Your task to perform on an android device: Show the shopping cart on costco. Search for rayovac triple a on costco, select the first entry, and add it to the cart. Image 0: 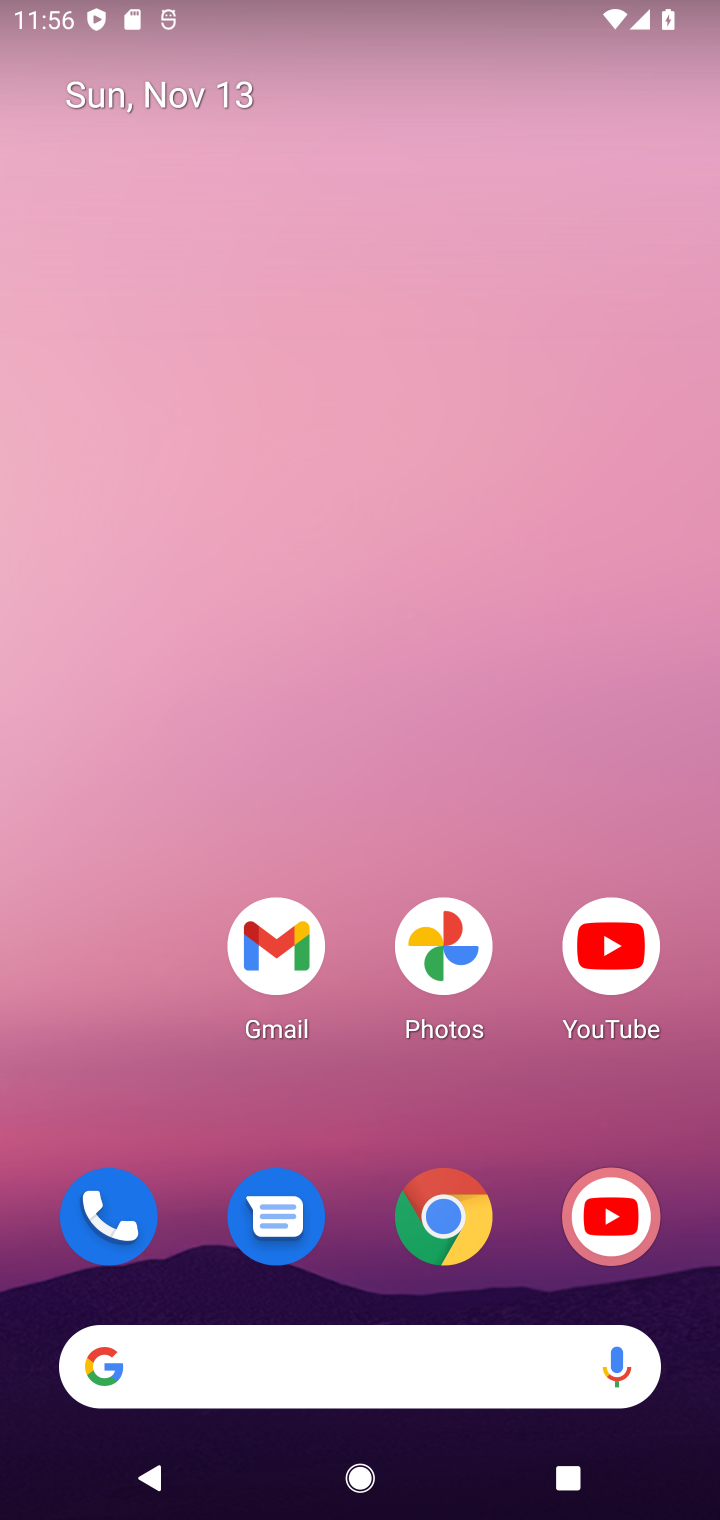
Step 0: click (449, 1235)
Your task to perform on an android device: Show the shopping cart on costco. Search for rayovac triple a on costco, select the first entry, and add it to the cart. Image 1: 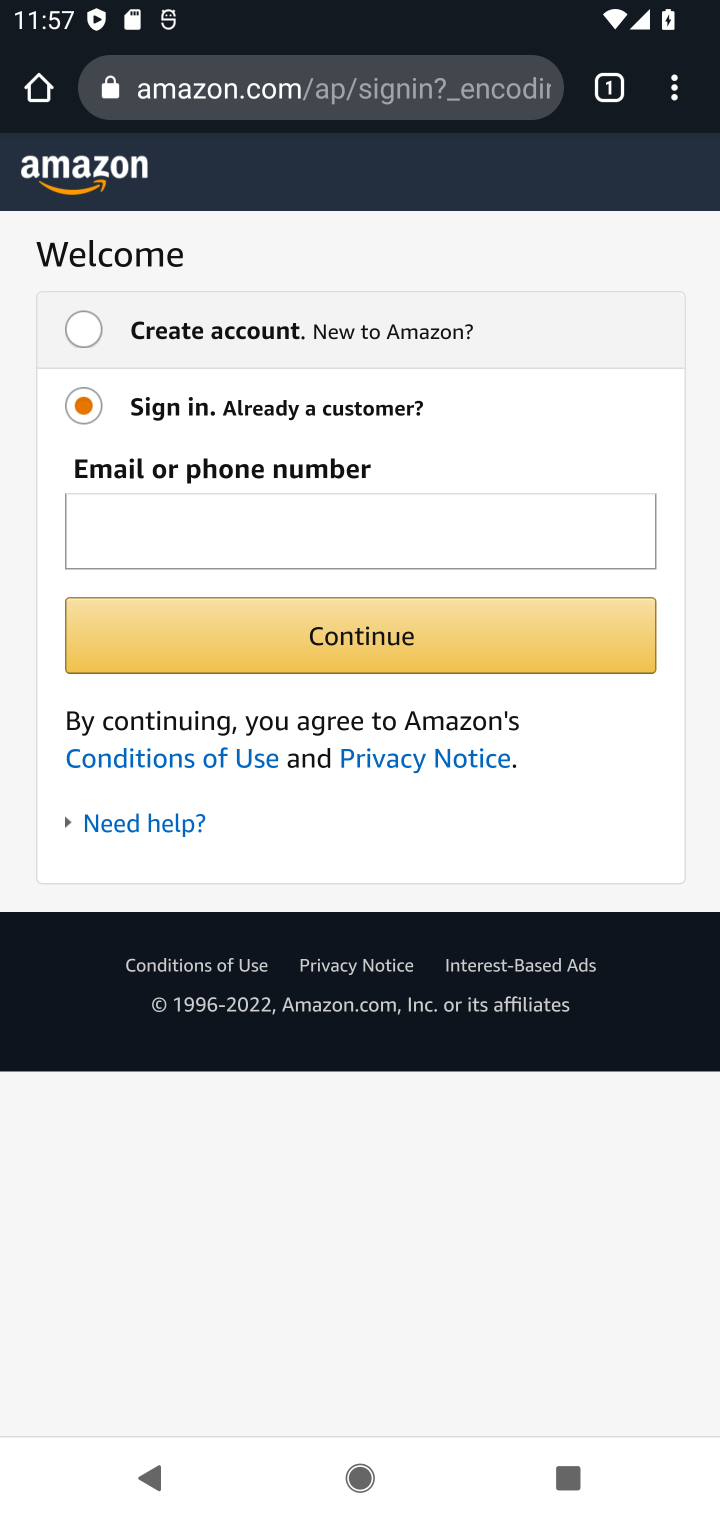
Step 1: click (621, 99)
Your task to perform on an android device: Show the shopping cart on costco. Search for rayovac triple a on costco, select the first entry, and add it to the cart. Image 2: 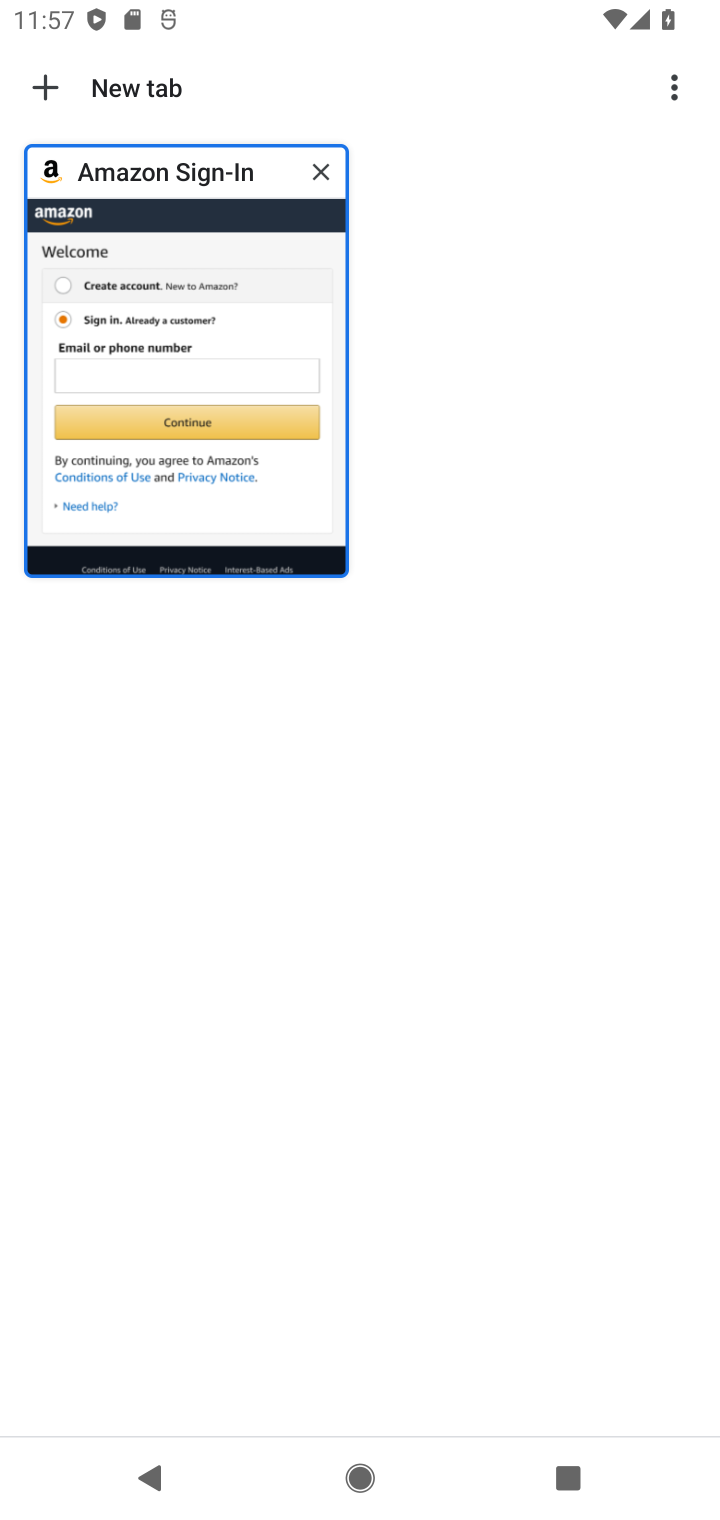
Step 2: click (37, 84)
Your task to perform on an android device: Show the shopping cart on costco. Search for rayovac triple a on costco, select the first entry, and add it to the cart. Image 3: 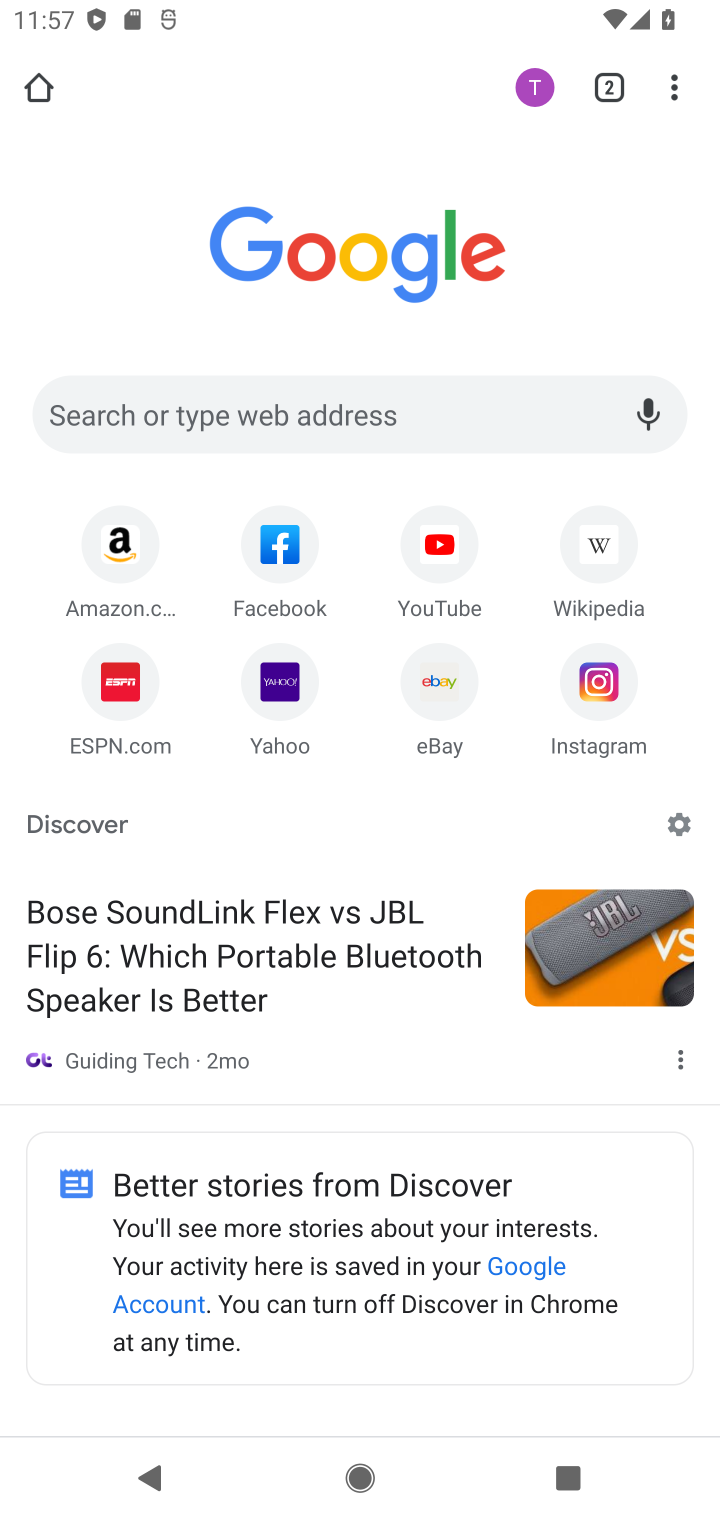
Step 3: click (167, 404)
Your task to perform on an android device: Show the shopping cart on costco. Search for rayovac triple a on costco, select the first entry, and add it to the cart. Image 4: 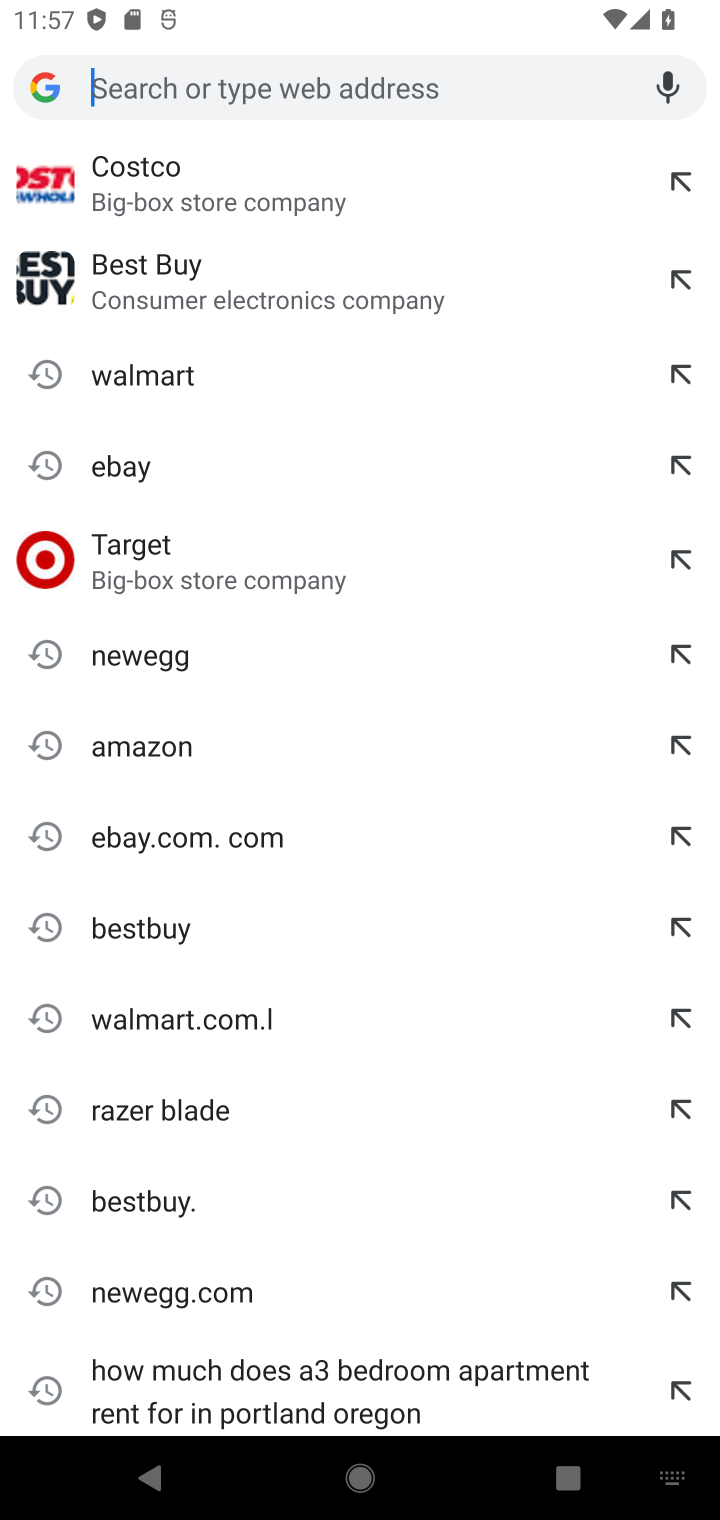
Step 4: click (155, 193)
Your task to perform on an android device: Show the shopping cart on costco. Search for rayovac triple a on costco, select the first entry, and add it to the cart. Image 5: 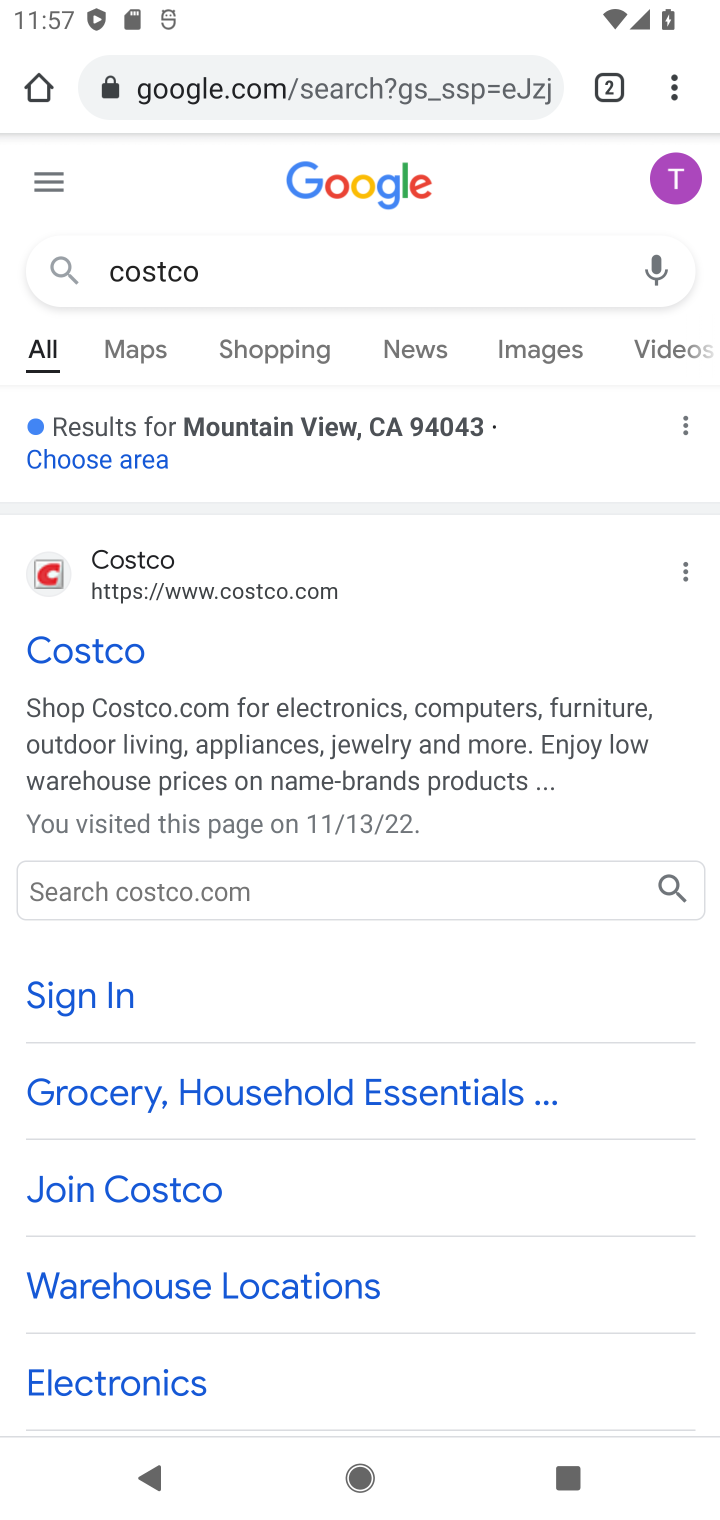
Step 5: click (195, 899)
Your task to perform on an android device: Show the shopping cart on costco. Search for rayovac triple a on costco, select the first entry, and add it to the cart. Image 6: 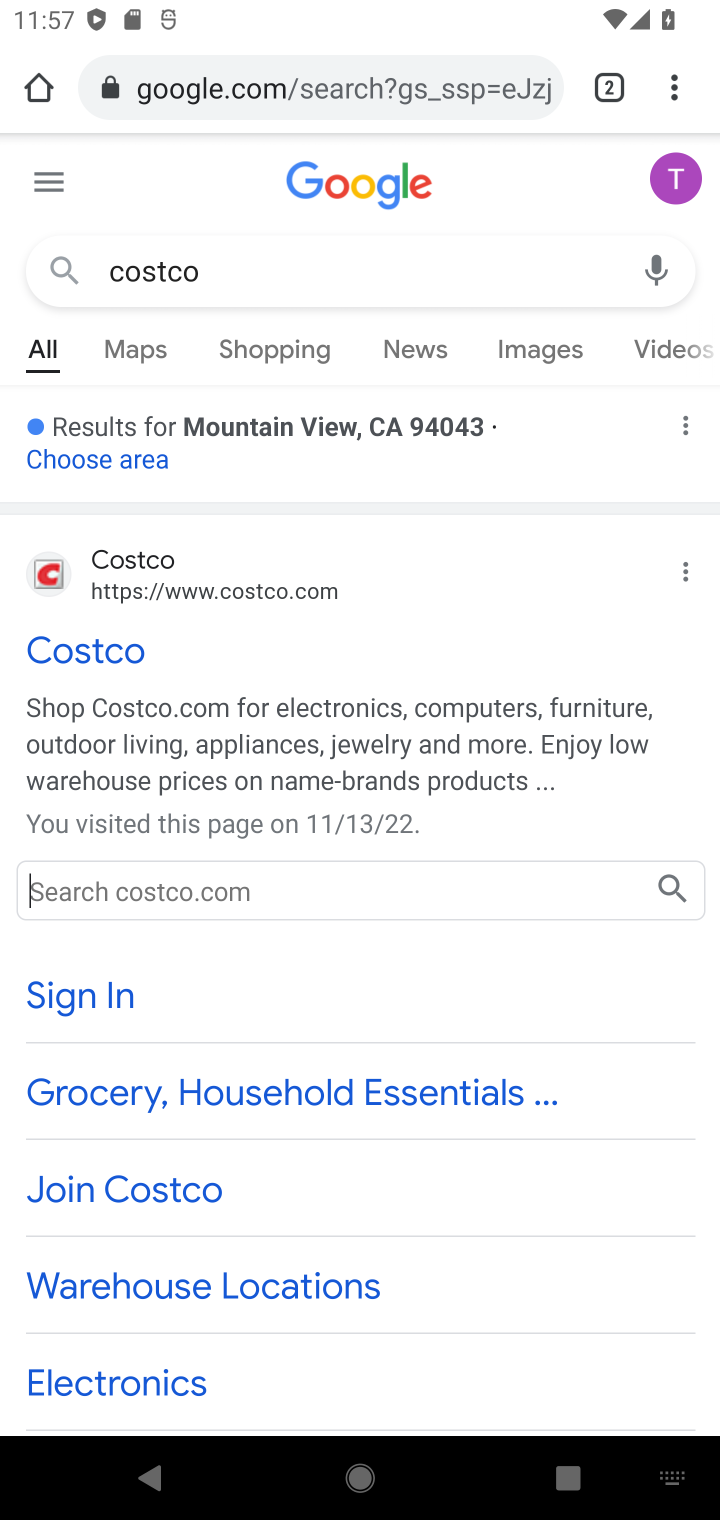
Step 6: type "rayovac triple a battery"
Your task to perform on an android device: Show the shopping cart on costco. Search for rayovac triple a on costco, select the first entry, and add it to the cart. Image 7: 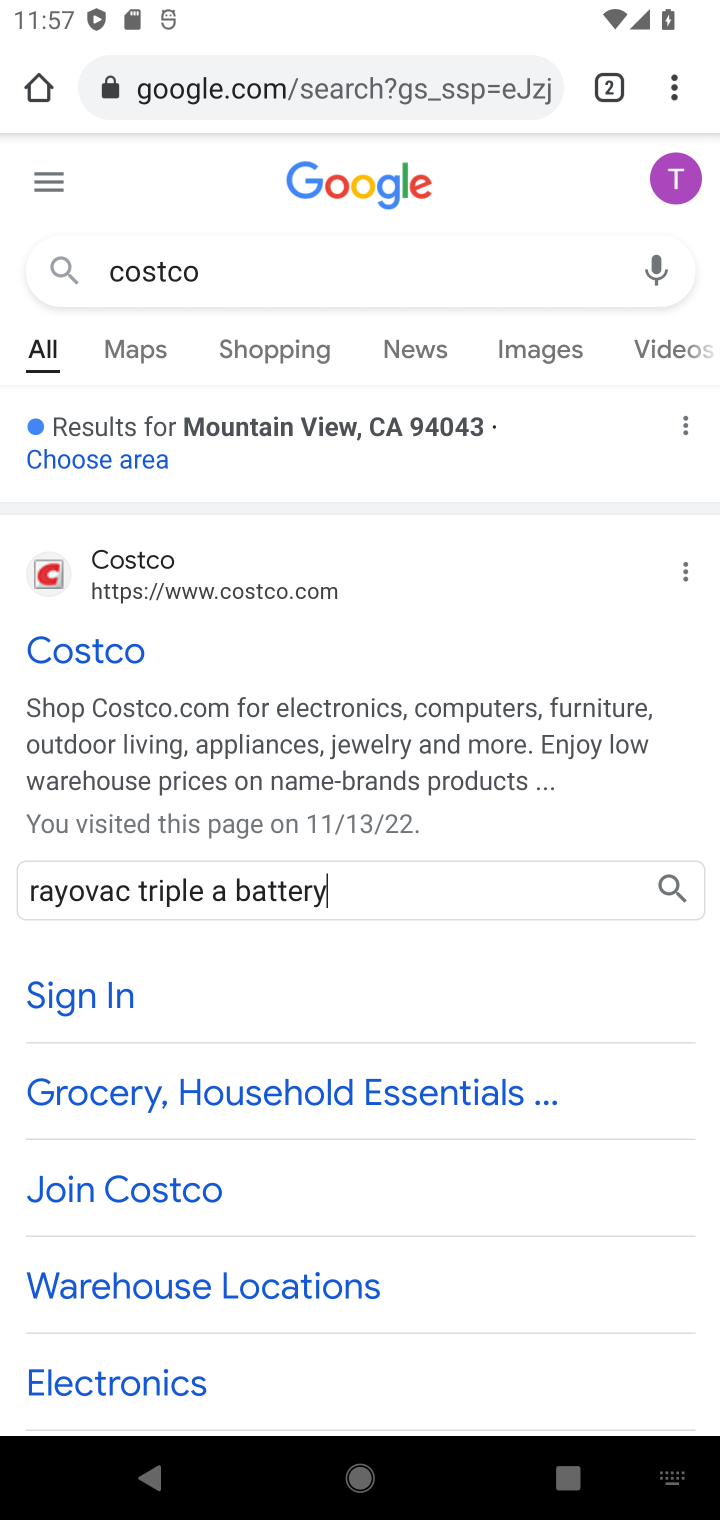
Step 7: click (676, 896)
Your task to perform on an android device: Show the shopping cart on costco. Search for rayovac triple a on costco, select the first entry, and add it to the cart. Image 8: 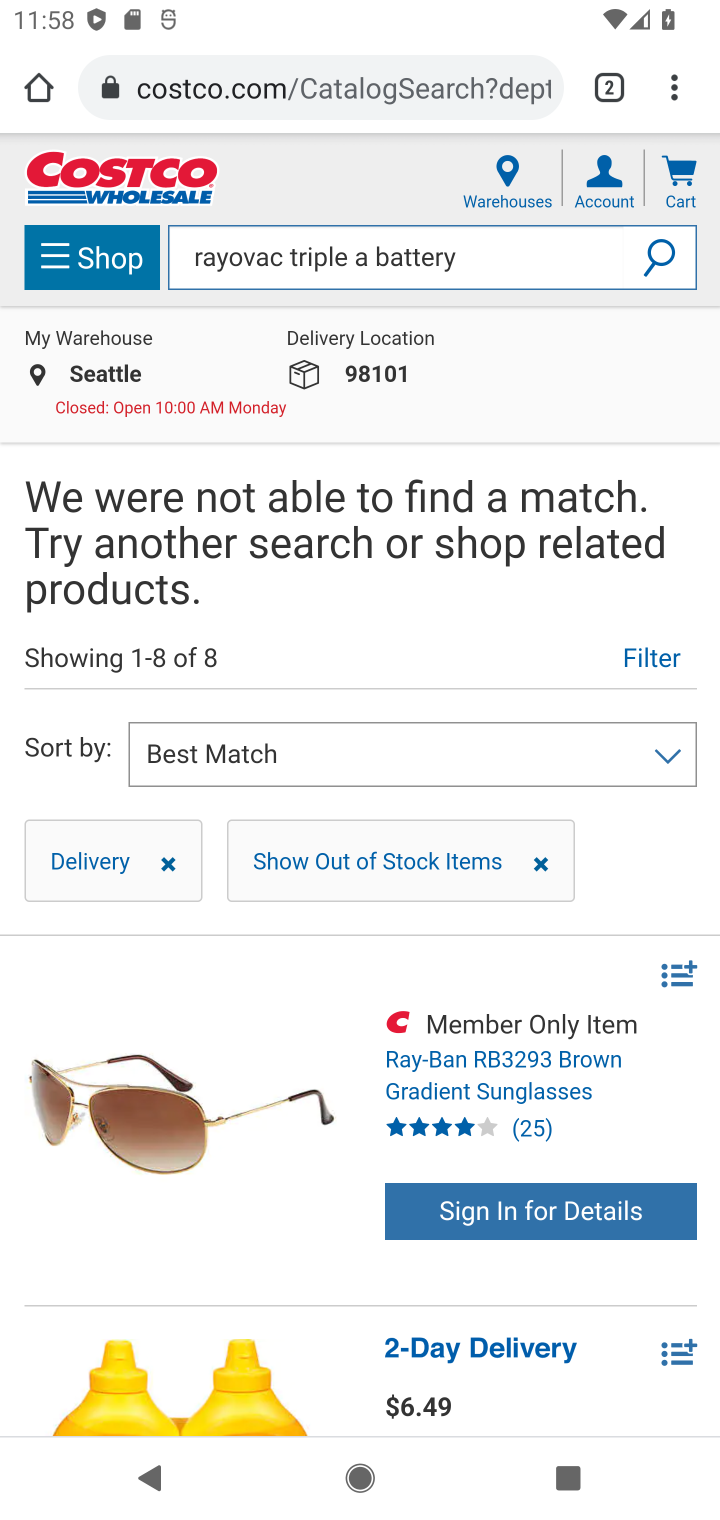
Step 8: task complete